Your task to perform on an android device: Search for Italian restaurants on Maps Image 0: 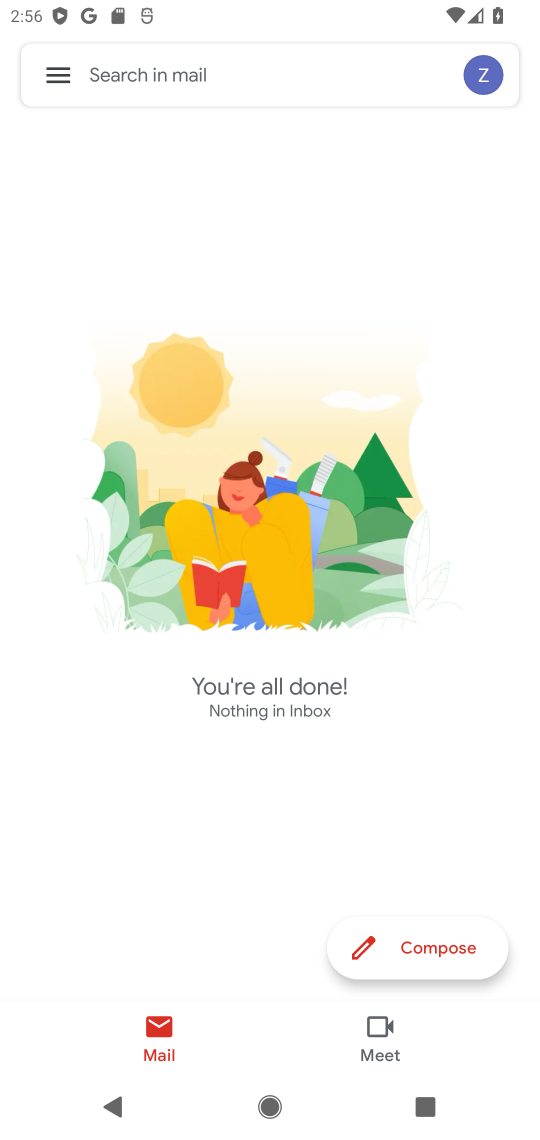
Step 0: drag from (306, 791) to (452, 384)
Your task to perform on an android device: Search for Italian restaurants on Maps Image 1: 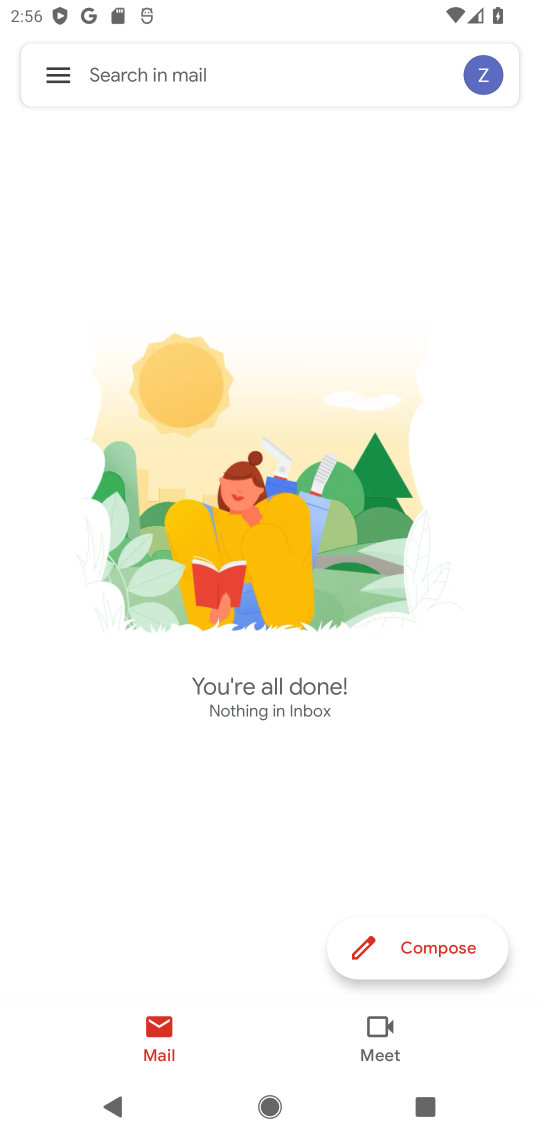
Step 1: drag from (190, 785) to (305, 455)
Your task to perform on an android device: Search for Italian restaurants on Maps Image 2: 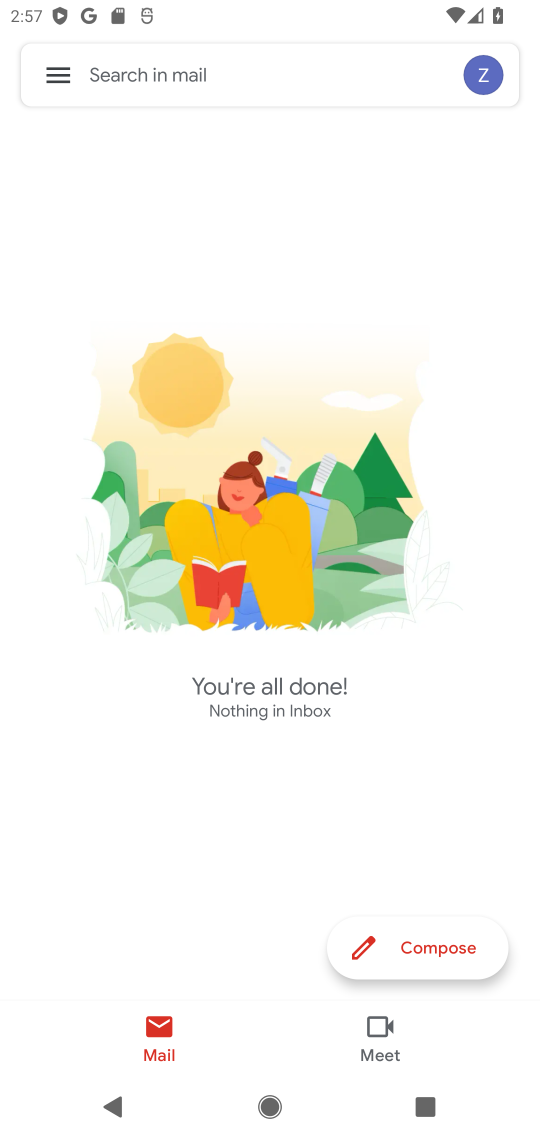
Step 2: press home button
Your task to perform on an android device: Search for Italian restaurants on Maps Image 3: 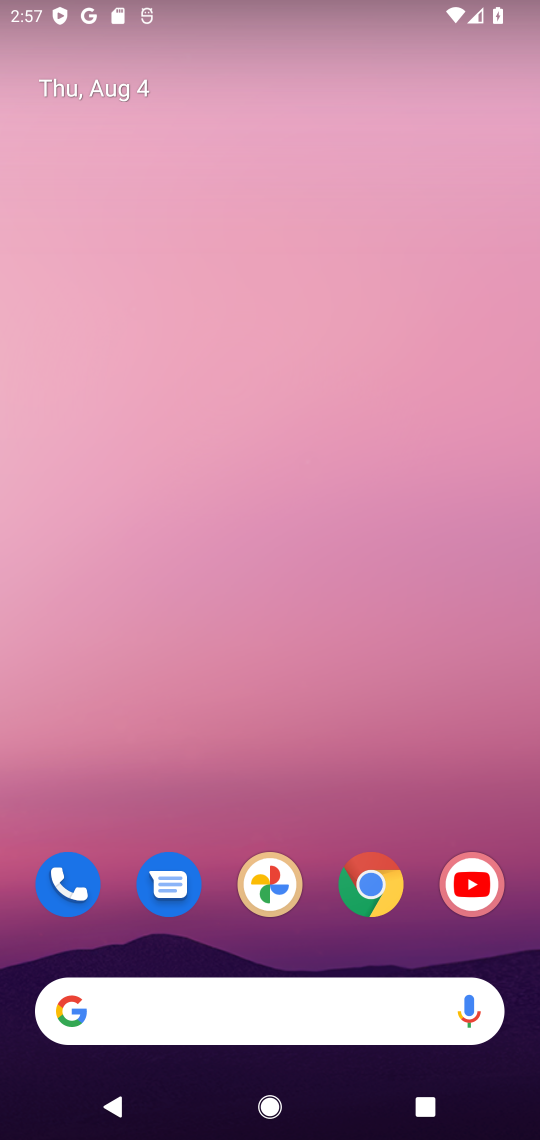
Step 3: drag from (209, 912) to (325, 480)
Your task to perform on an android device: Search for Italian restaurants on Maps Image 4: 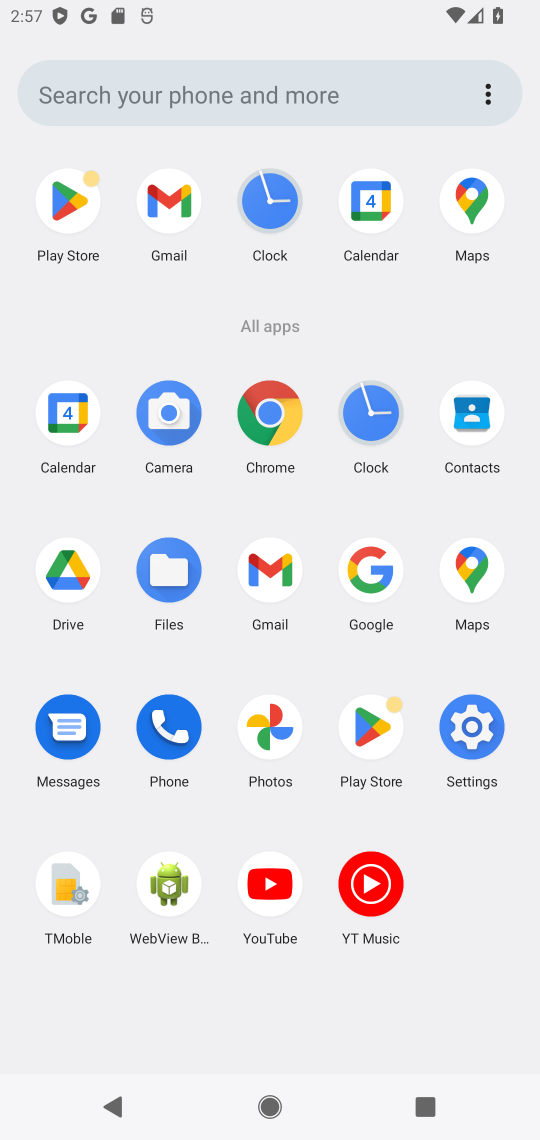
Step 4: click (450, 550)
Your task to perform on an android device: Search for Italian restaurants on Maps Image 5: 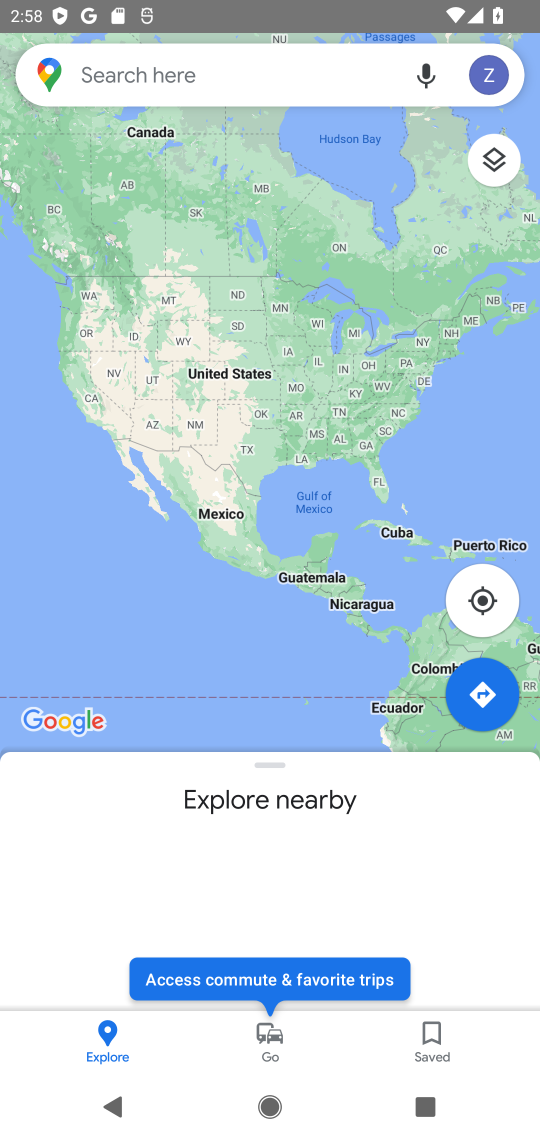
Step 5: drag from (338, 819) to (462, 432)
Your task to perform on an android device: Search for Italian restaurants on Maps Image 6: 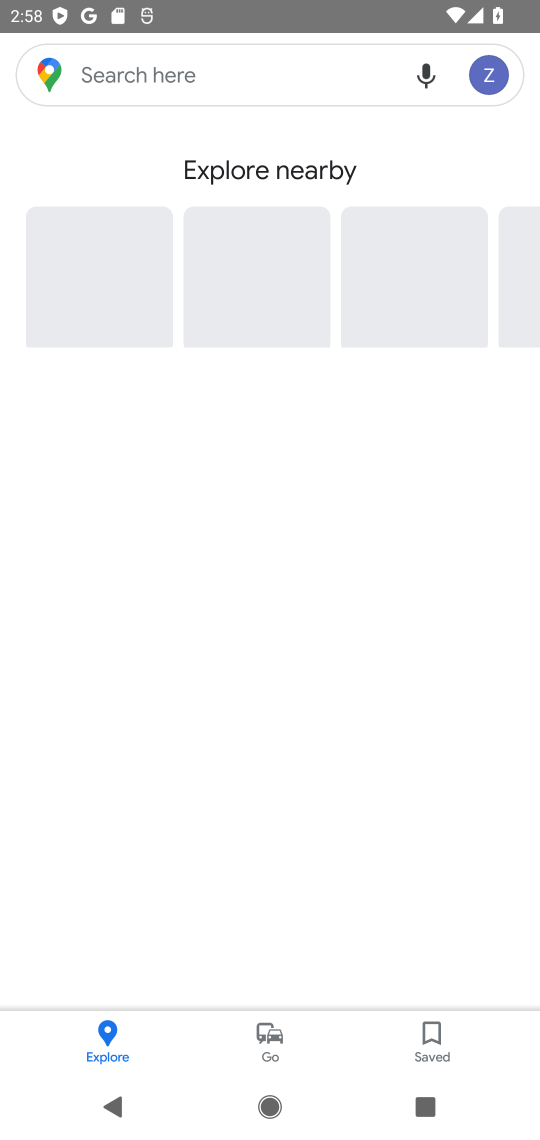
Step 6: click (138, 83)
Your task to perform on an android device: Search for Italian restaurants on Maps Image 7: 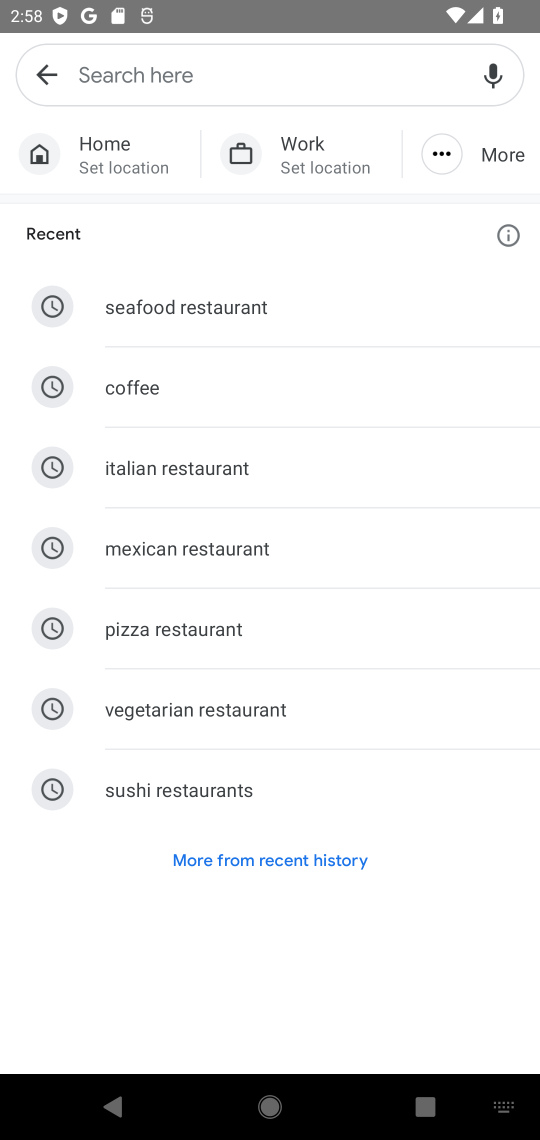
Step 7: click (163, 466)
Your task to perform on an android device: Search for Italian restaurants on Maps Image 8: 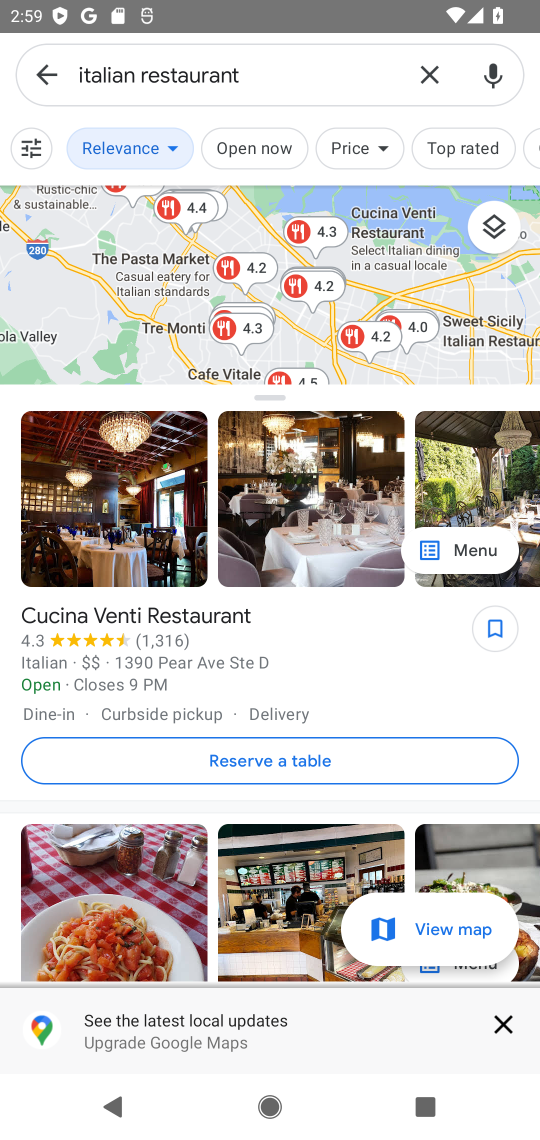
Step 8: task complete